Your task to perform on an android device: empty trash in the gmail app Image 0: 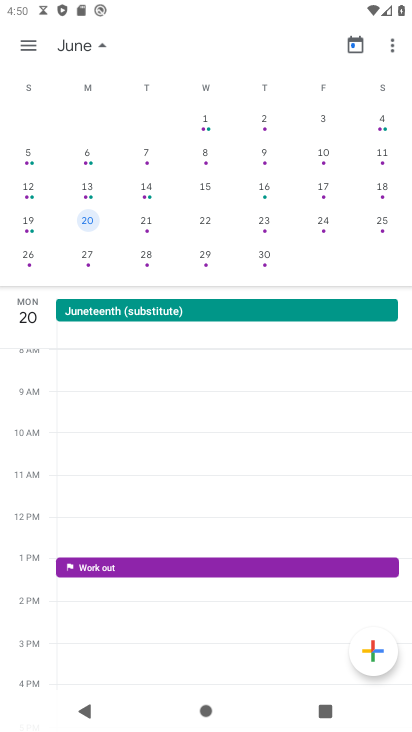
Step 0: press back button
Your task to perform on an android device: empty trash in the gmail app Image 1: 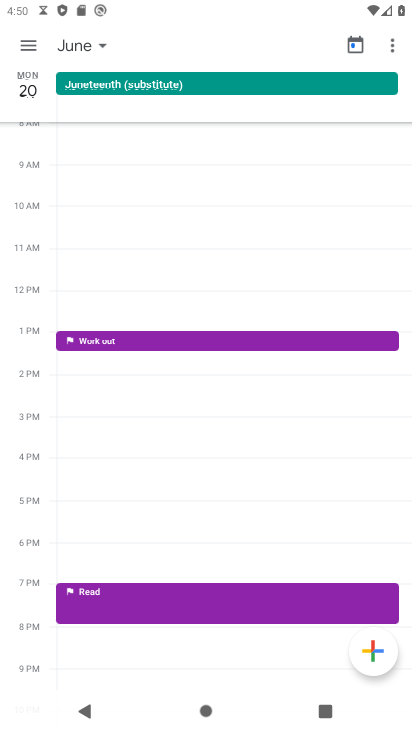
Step 1: press back button
Your task to perform on an android device: empty trash in the gmail app Image 2: 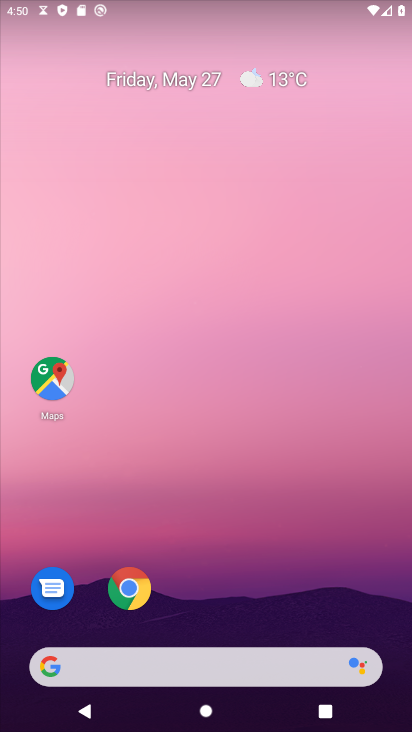
Step 2: drag from (201, 525) to (275, 44)
Your task to perform on an android device: empty trash in the gmail app Image 3: 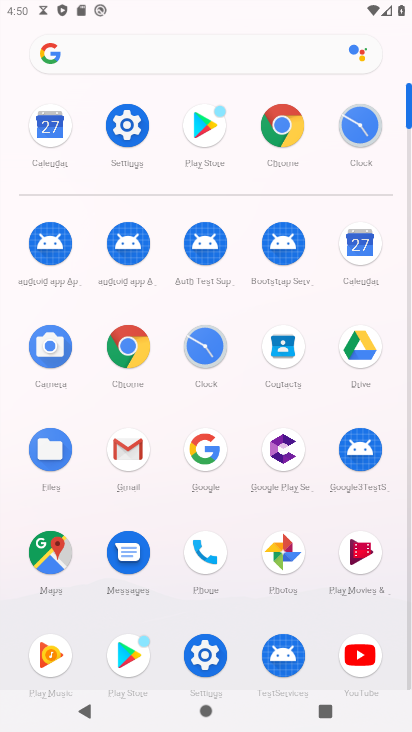
Step 3: click (126, 457)
Your task to perform on an android device: empty trash in the gmail app Image 4: 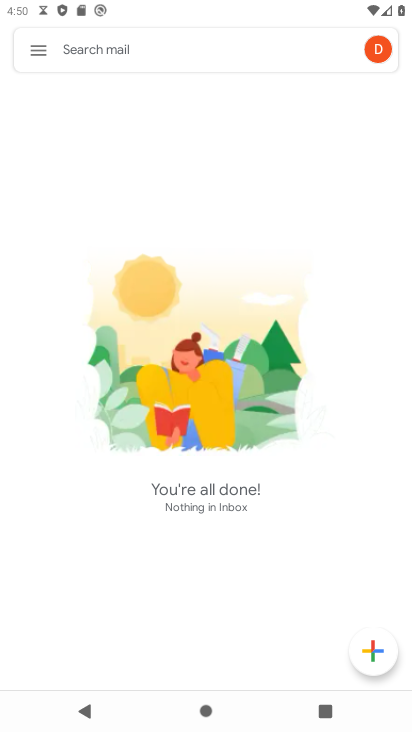
Step 4: click (43, 49)
Your task to perform on an android device: empty trash in the gmail app Image 5: 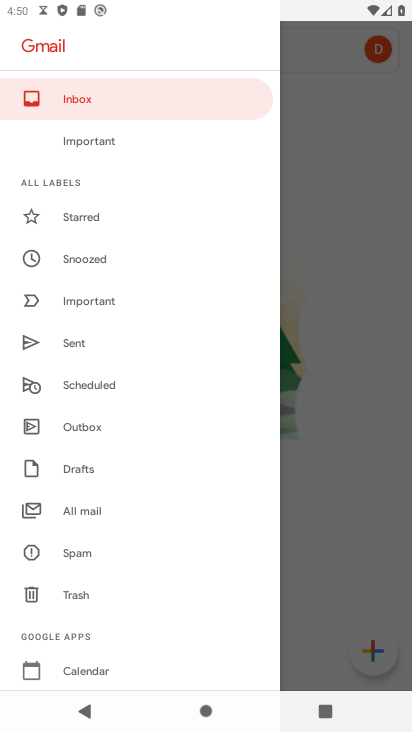
Step 5: click (74, 594)
Your task to perform on an android device: empty trash in the gmail app Image 6: 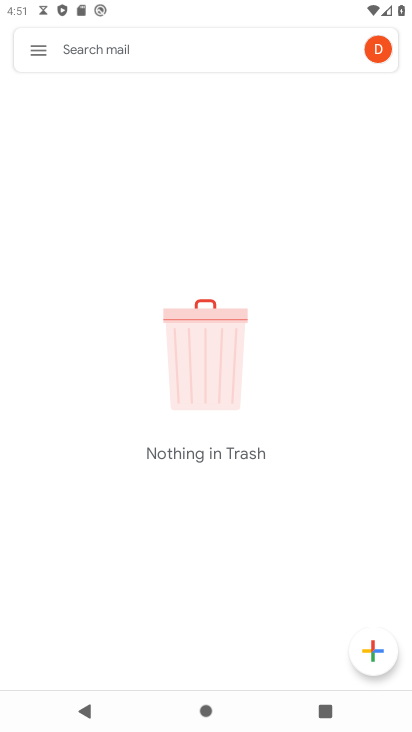
Step 6: task complete